Your task to perform on an android device: turn on showing notifications on the lock screen Image 0: 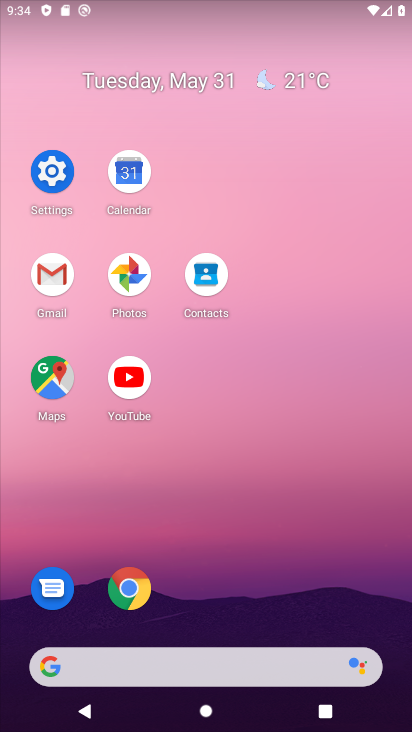
Step 0: click (62, 177)
Your task to perform on an android device: turn on showing notifications on the lock screen Image 1: 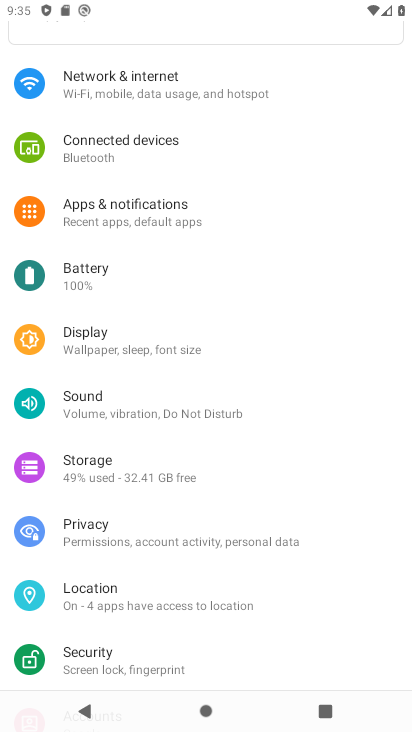
Step 1: click (212, 209)
Your task to perform on an android device: turn on showing notifications on the lock screen Image 2: 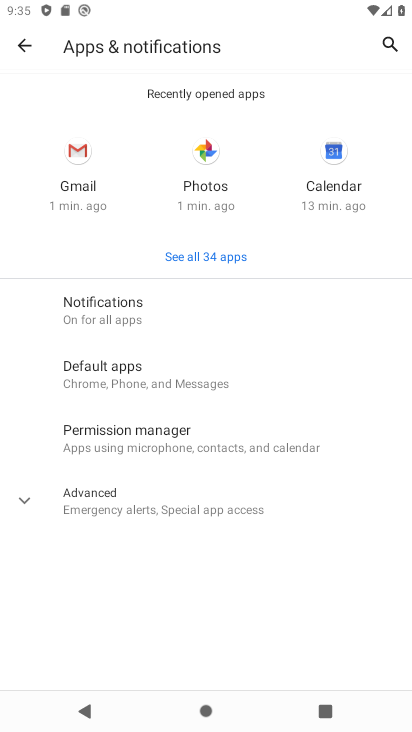
Step 2: click (217, 294)
Your task to perform on an android device: turn on showing notifications on the lock screen Image 3: 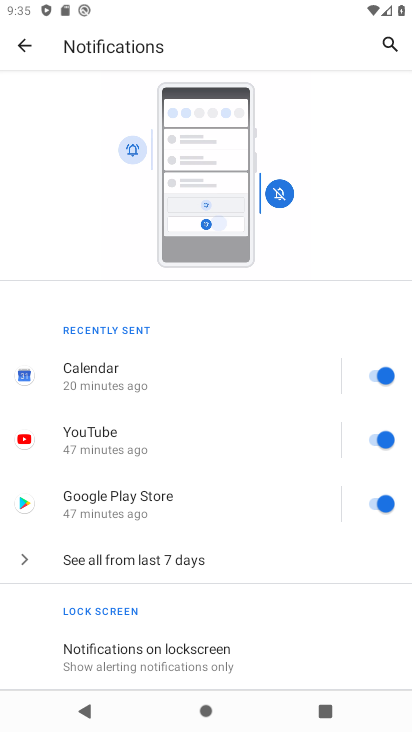
Step 3: click (137, 659)
Your task to perform on an android device: turn on showing notifications on the lock screen Image 4: 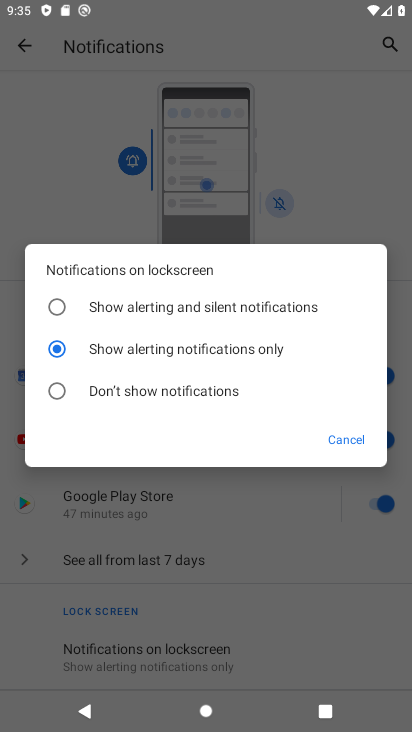
Step 4: click (237, 308)
Your task to perform on an android device: turn on showing notifications on the lock screen Image 5: 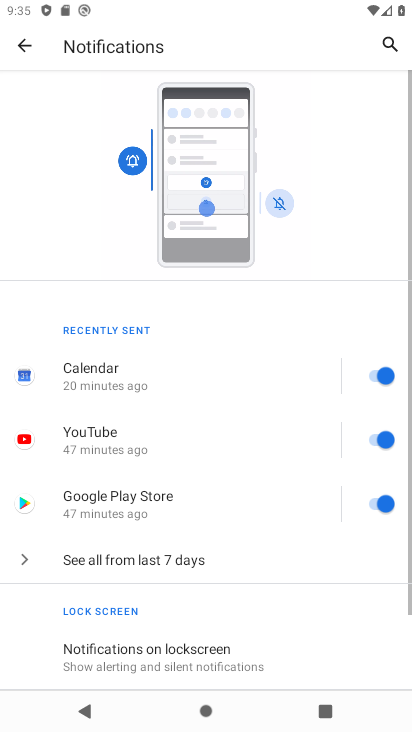
Step 5: task complete